Your task to perform on an android device: delete browsing data in the chrome app Image 0: 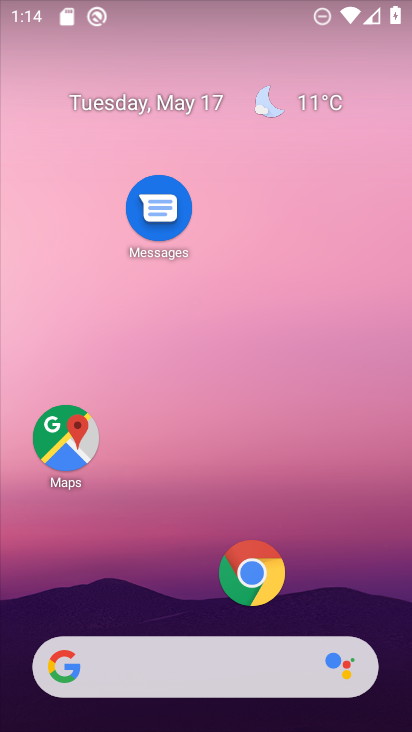
Step 0: press home button
Your task to perform on an android device: delete browsing data in the chrome app Image 1: 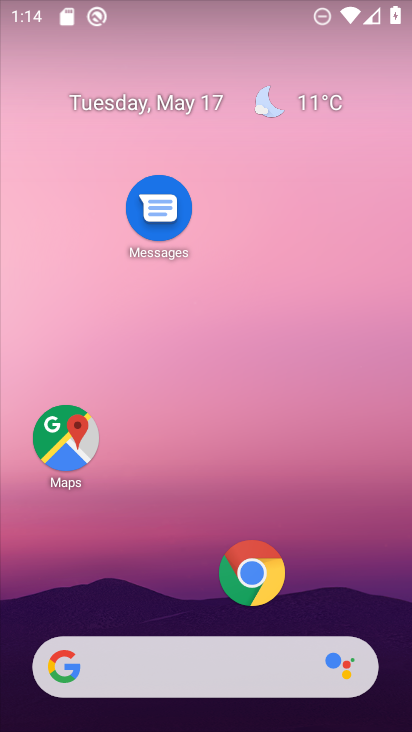
Step 1: click (248, 566)
Your task to perform on an android device: delete browsing data in the chrome app Image 2: 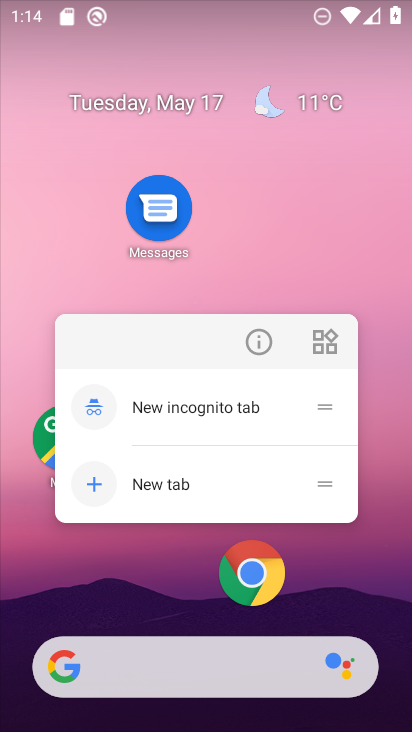
Step 2: click (318, 580)
Your task to perform on an android device: delete browsing data in the chrome app Image 3: 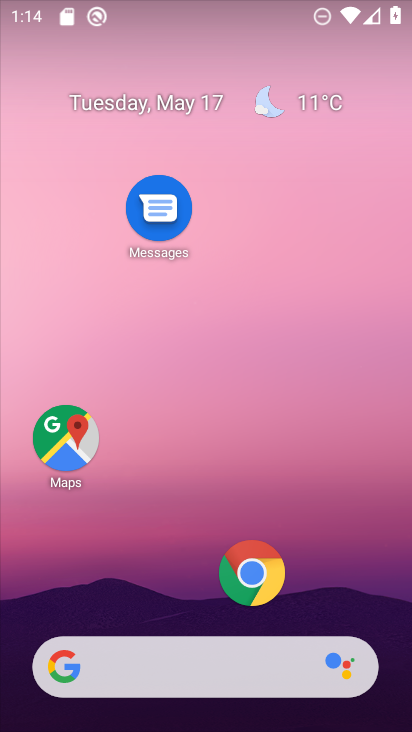
Step 3: drag from (303, 615) to (380, 50)
Your task to perform on an android device: delete browsing data in the chrome app Image 4: 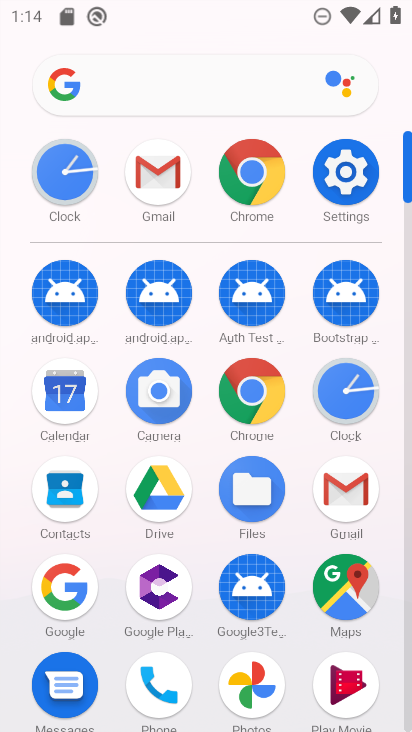
Step 4: click (248, 382)
Your task to perform on an android device: delete browsing data in the chrome app Image 5: 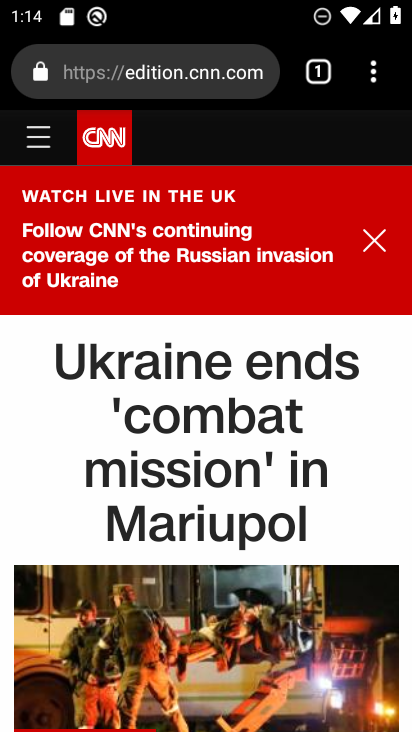
Step 5: click (370, 67)
Your task to perform on an android device: delete browsing data in the chrome app Image 6: 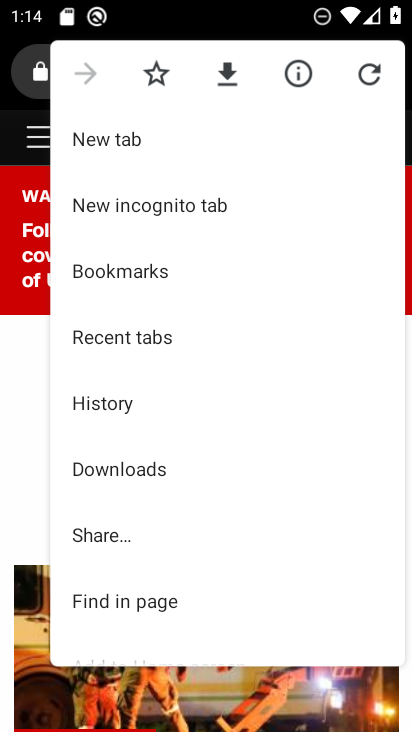
Step 6: click (148, 405)
Your task to perform on an android device: delete browsing data in the chrome app Image 7: 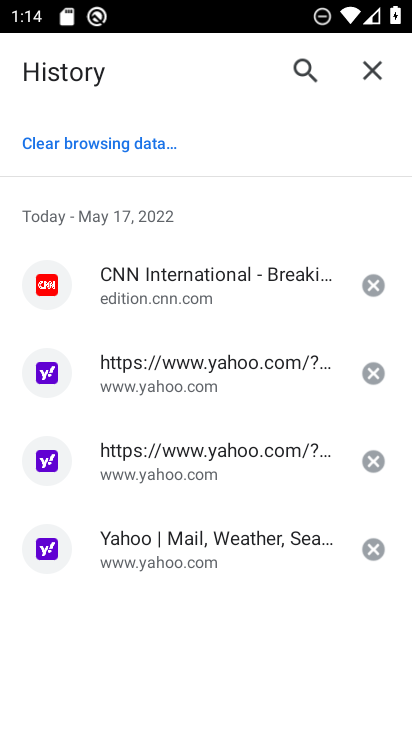
Step 7: click (105, 143)
Your task to perform on an android device: delete browsing data in the chrome app Image 8: 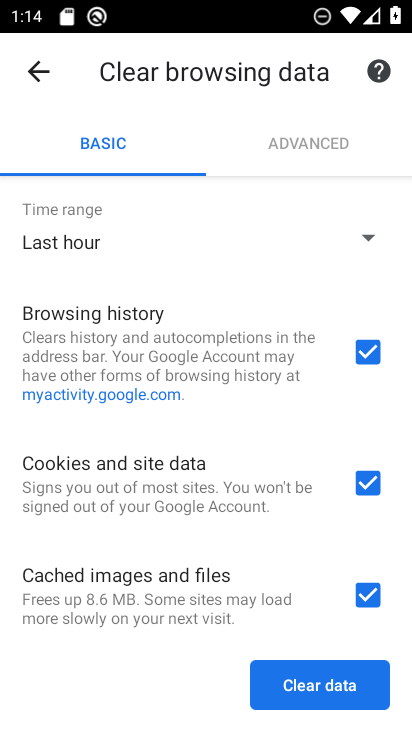
Step 8: click (322, 686)
Your task to perform on an android device: delete browsing data in the chrome app Image 9: 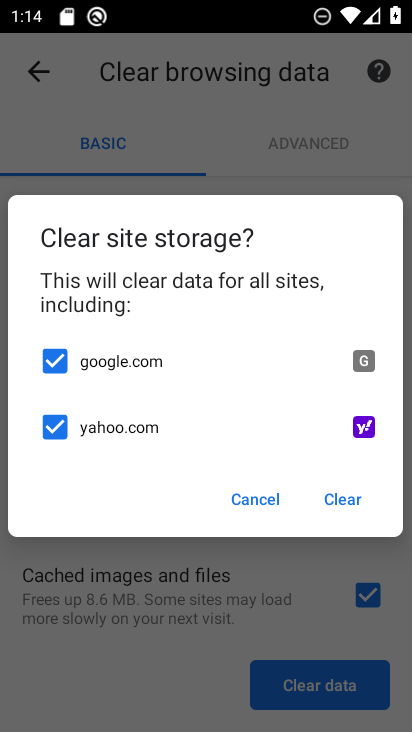
Step 9: click (346, 496)
Your task to perform on an android device: delete browsing data in the chrome app Image 10: 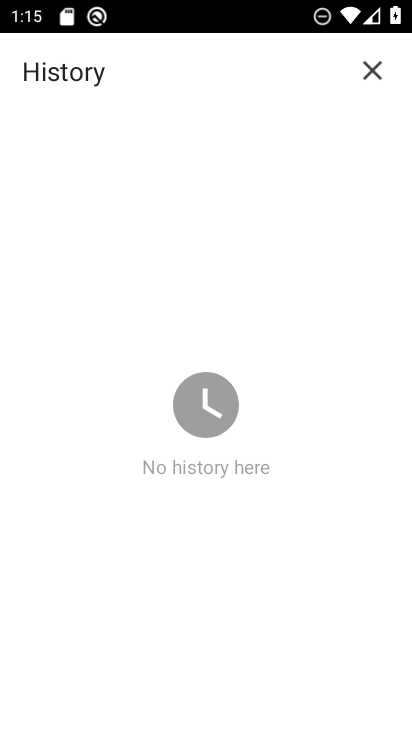
Step 10: task complete